Your task to perform on an android device: empty trash in the gmail app Image 0: 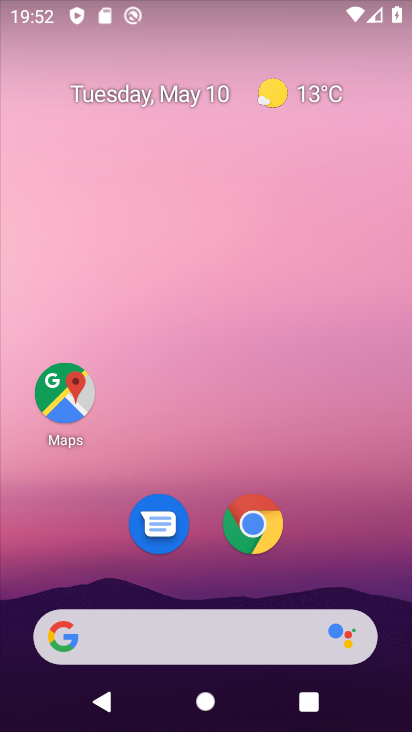
Step 0: drag from (277, 204) to (334, 0)
Your task to perform on an android device: empty trash in the gmail app Image 1: 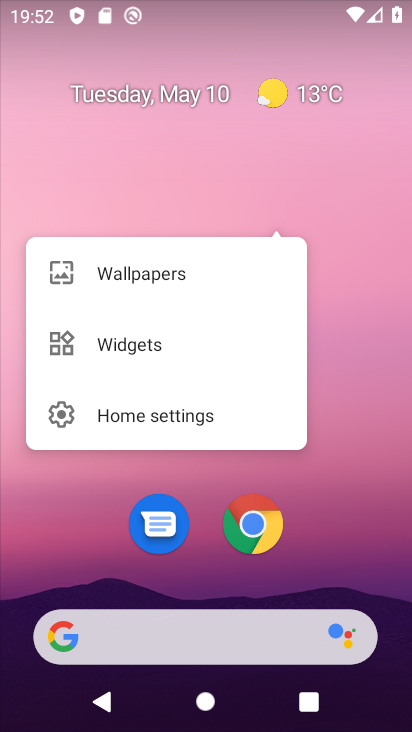
Step 1: click (359, 276)
Your task to perform on an android device: empty trash in the gmail app Image 2: 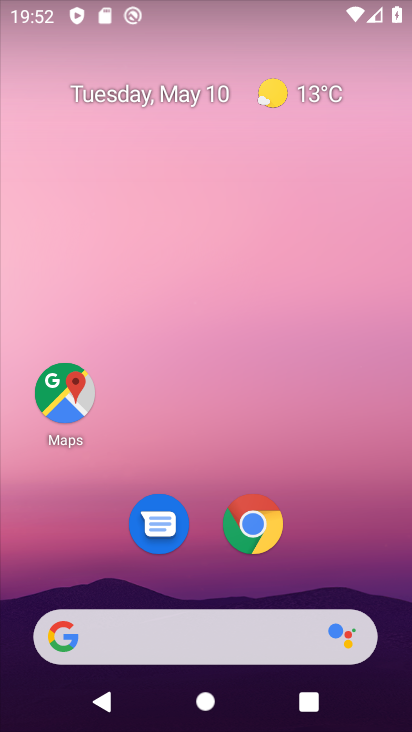
Step 2: drag from (316, 533) to (290, 39)
Your task to perform on an android device: empty trash in the gmail app Image 3: 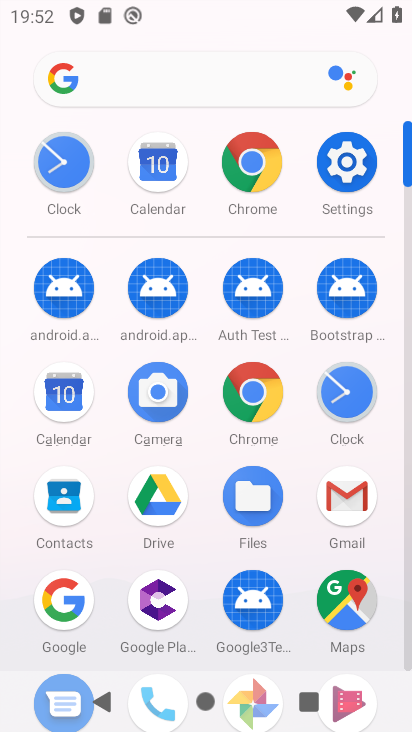
Step 3: click (341, 505)
Your task to perform on an android device: empty trash in the gmail app Image 4: 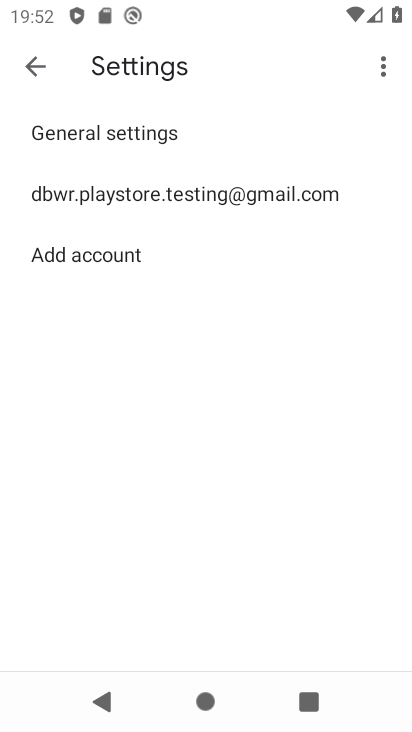
Step 4: click (41, 62)
Your task to perform on an android device: empty trash in the gmail app Image 5: 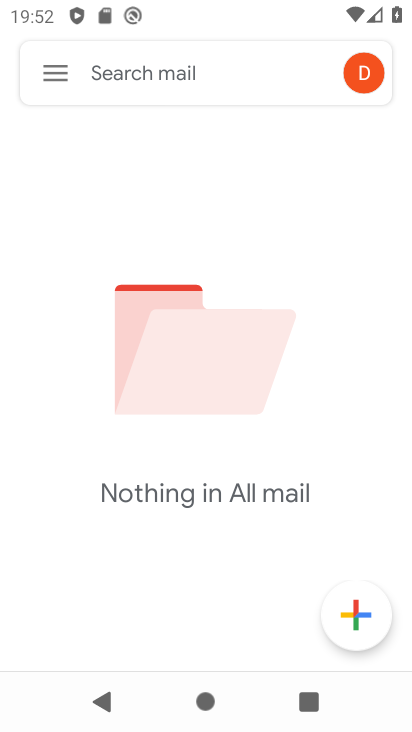
Step 5: click (53, 70)
Your task to perform on an android device: empty trash in the gmail app Image 6: 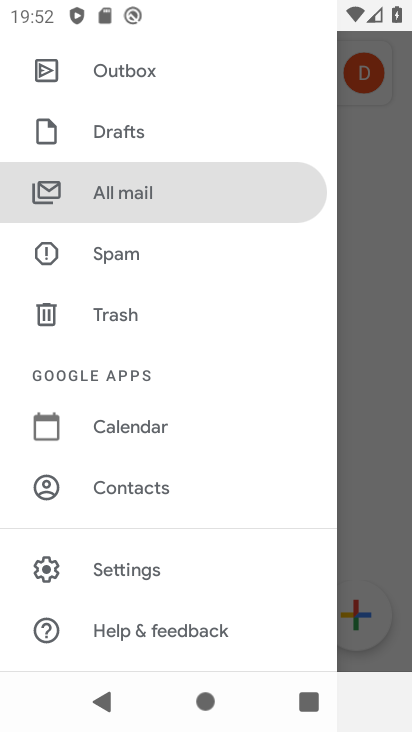
Step 6: click (120, 315)
Your task to perform on an android device: empty trash in the gmail app Image 7: 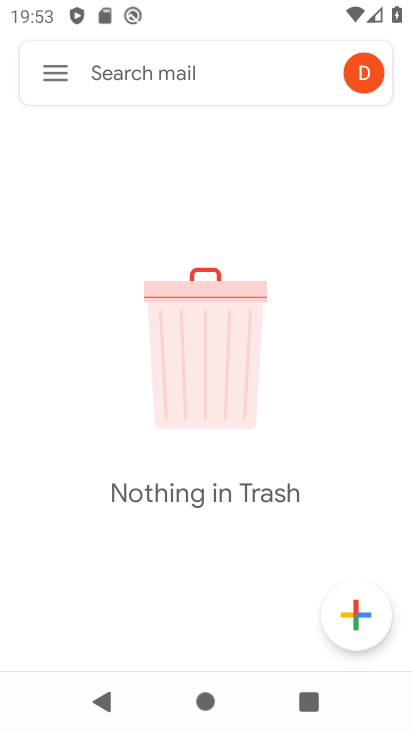
Step 7: task complete